Your task to perform on an android device: Empty the shopping cart on walmart. Search for "razer blackwidow" on walmart, select the first entry, add it to the cart, then select checkout. Image 0: 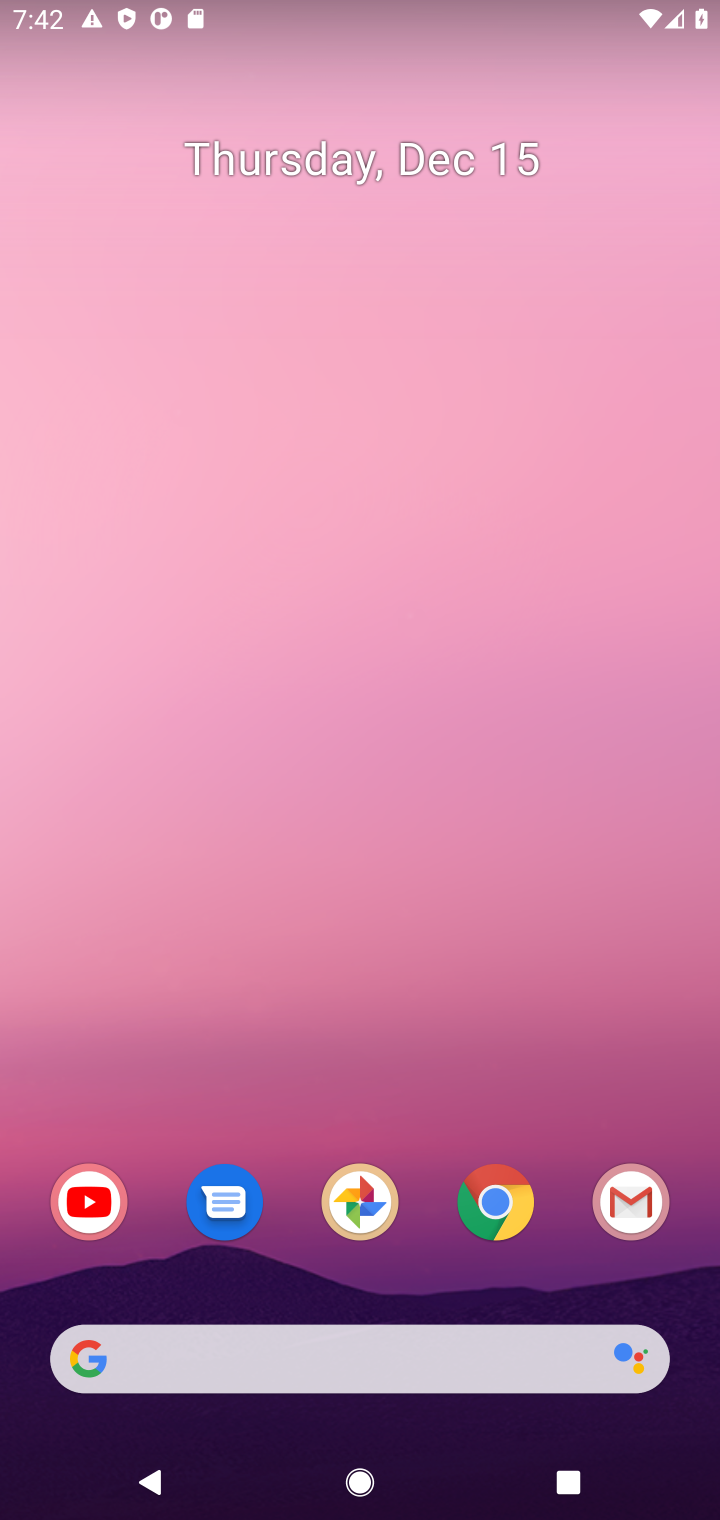
Step 0: click (497, 1190)
Your task to perform on an android device: Empty the shopping cart on walmart. Search for "razer blackwidow" on walmart, select the first entry, add it to the cart, then select checkout. Image 1: 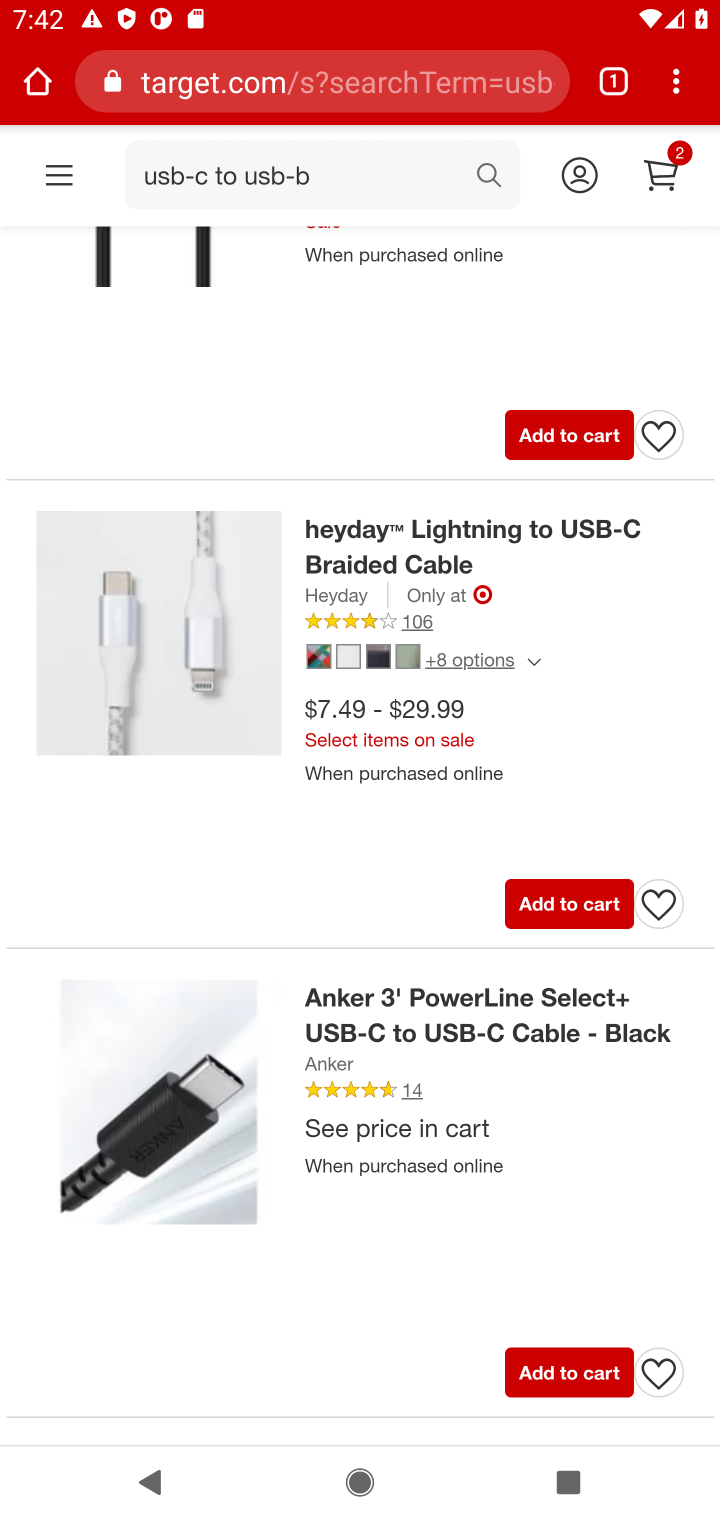
Step 1: click (252, 77)
Your task to perform on an android device: Empty the shopping cart on walmart. Search for "razer blackwidow" on walmart, select the first entry, add it to the cart, then select checkout. Image 2: 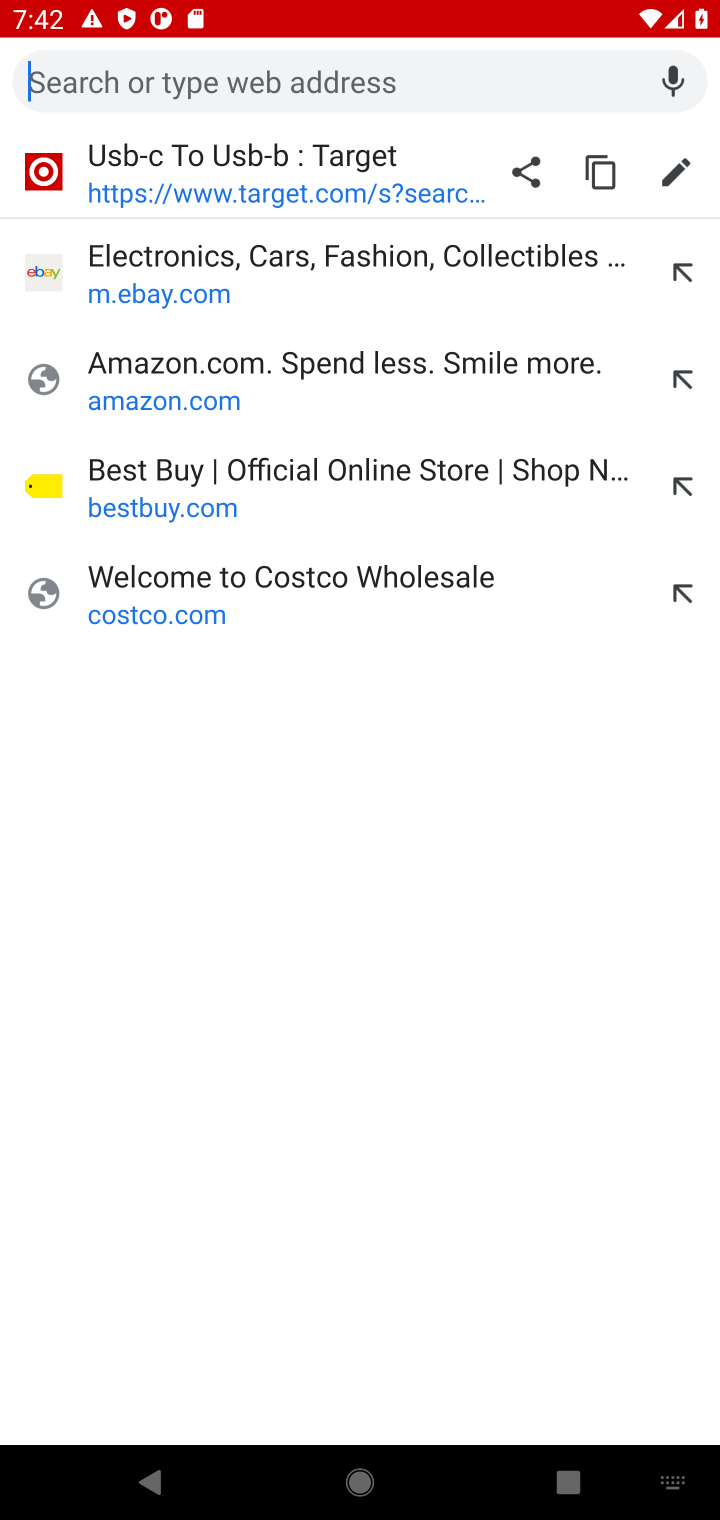
Step 2: type "walmart.com"
Your task to perform on an android device: Empty the shopping cart on walmart. Search for "razer blackwidow" on walmart, select the first entry, add it to the cart, then select checkout. Image 3: 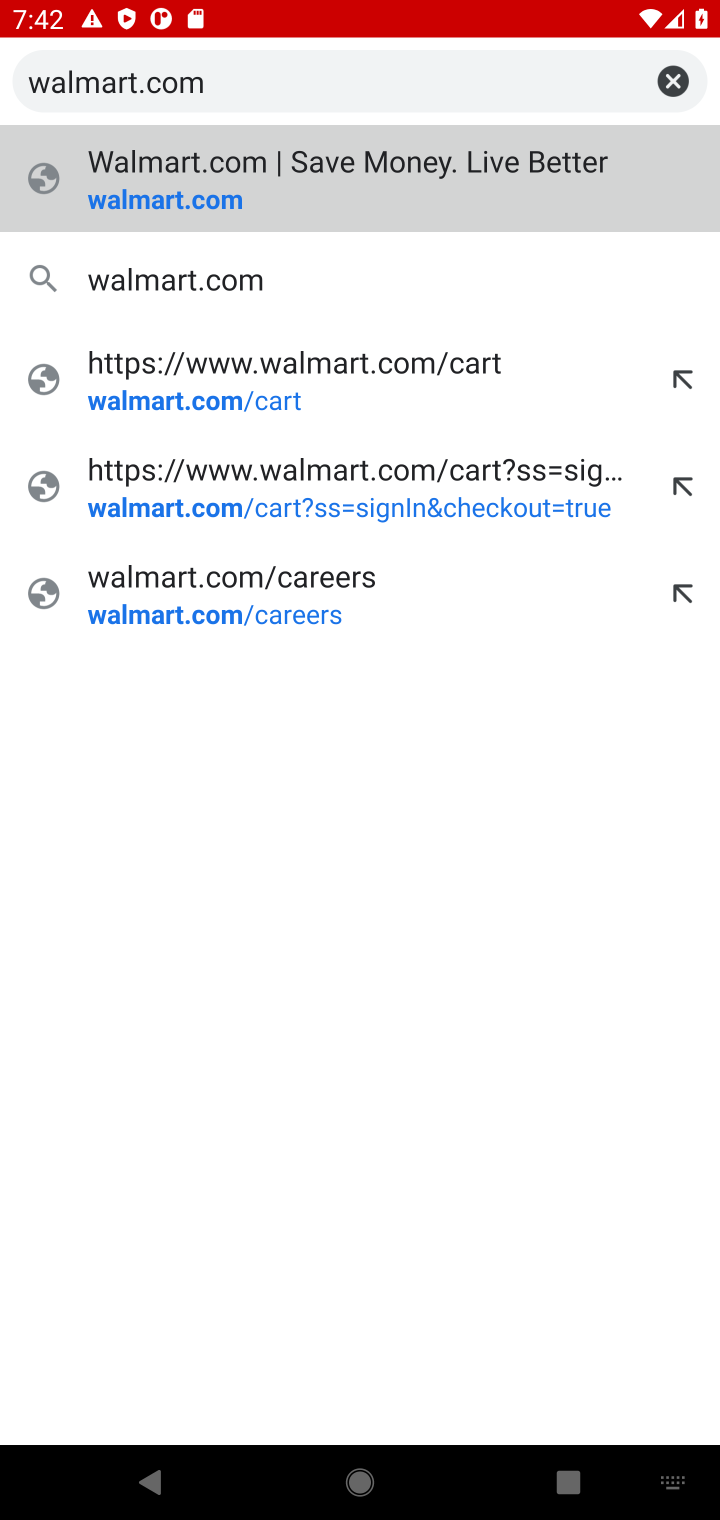
Step 3: click (211, 205)
Your task to perform on an android device: Empty the shopping cart on walmart. Search for "razer blackwidow" on walmart, select the first entry, add it to the cart, then select checkout. Image 4: 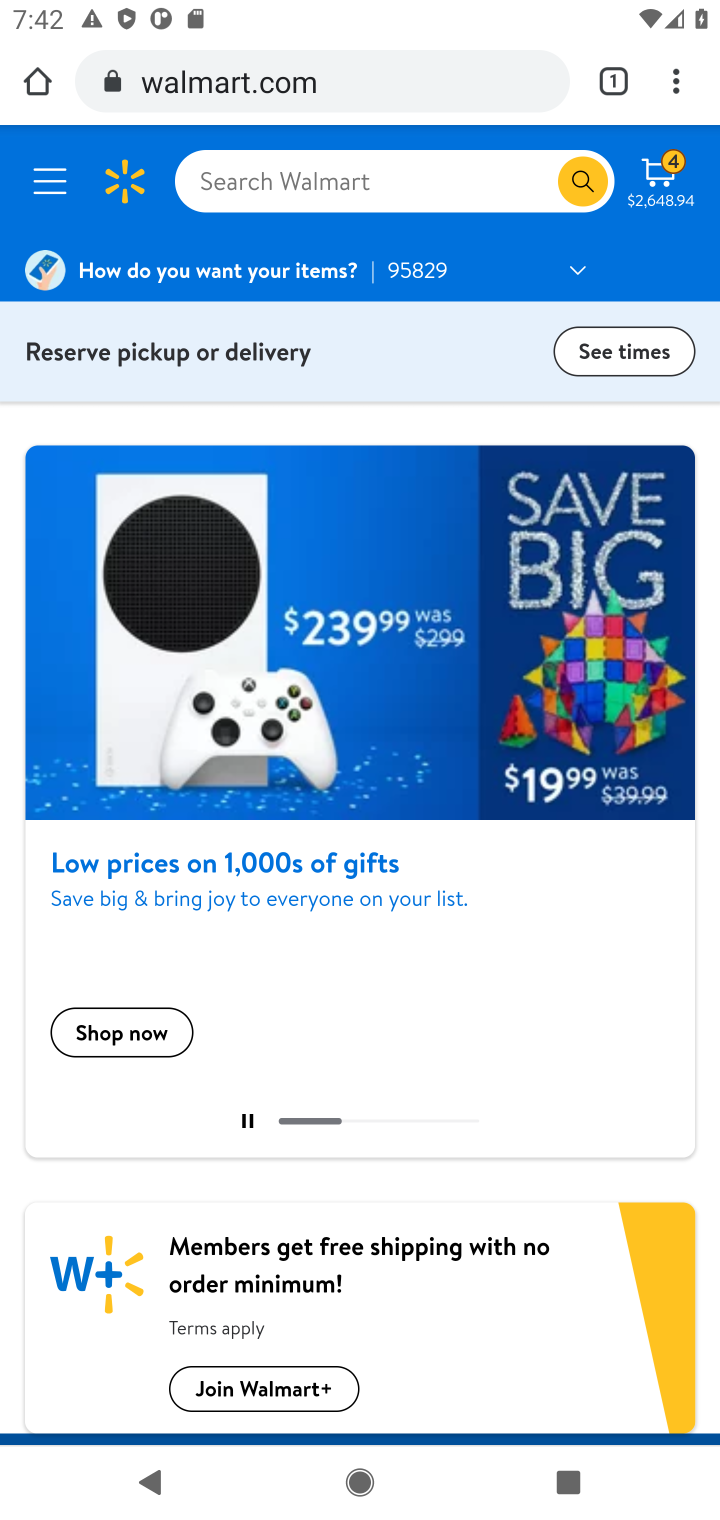
Step 4: click (671, 185)
Your task to perform on an android device: Empty the shopping cart on walmart. Search for "razer blackwidow" on walmart, select the first entry, add it to the cart, then select checkout. Image 5: 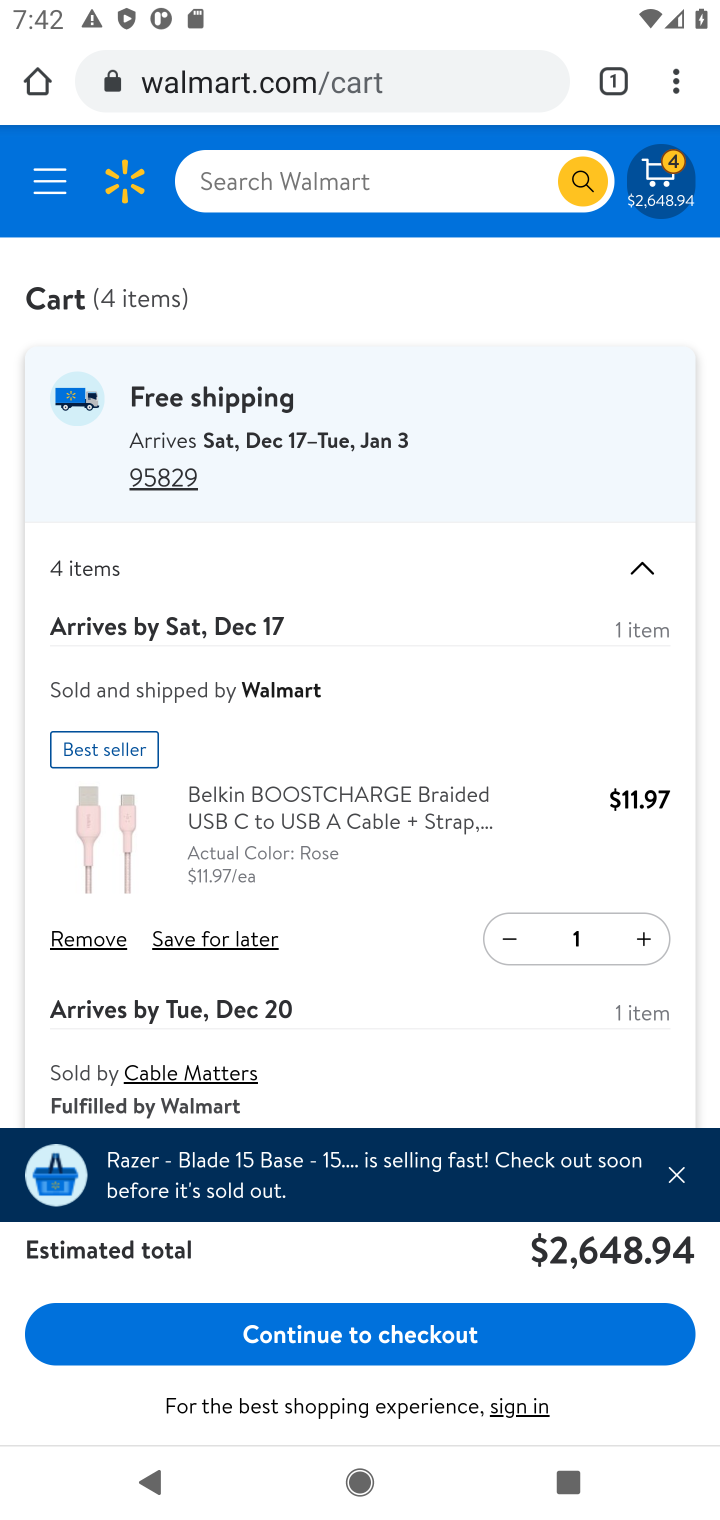
Step 5: click (82, 938)
Your task to perform on an android device: Empty the shopping cart on walmart. Search for "razer blackwidow" on walmart, select the first entry, add it to the cart, then select checkout. Image 6: 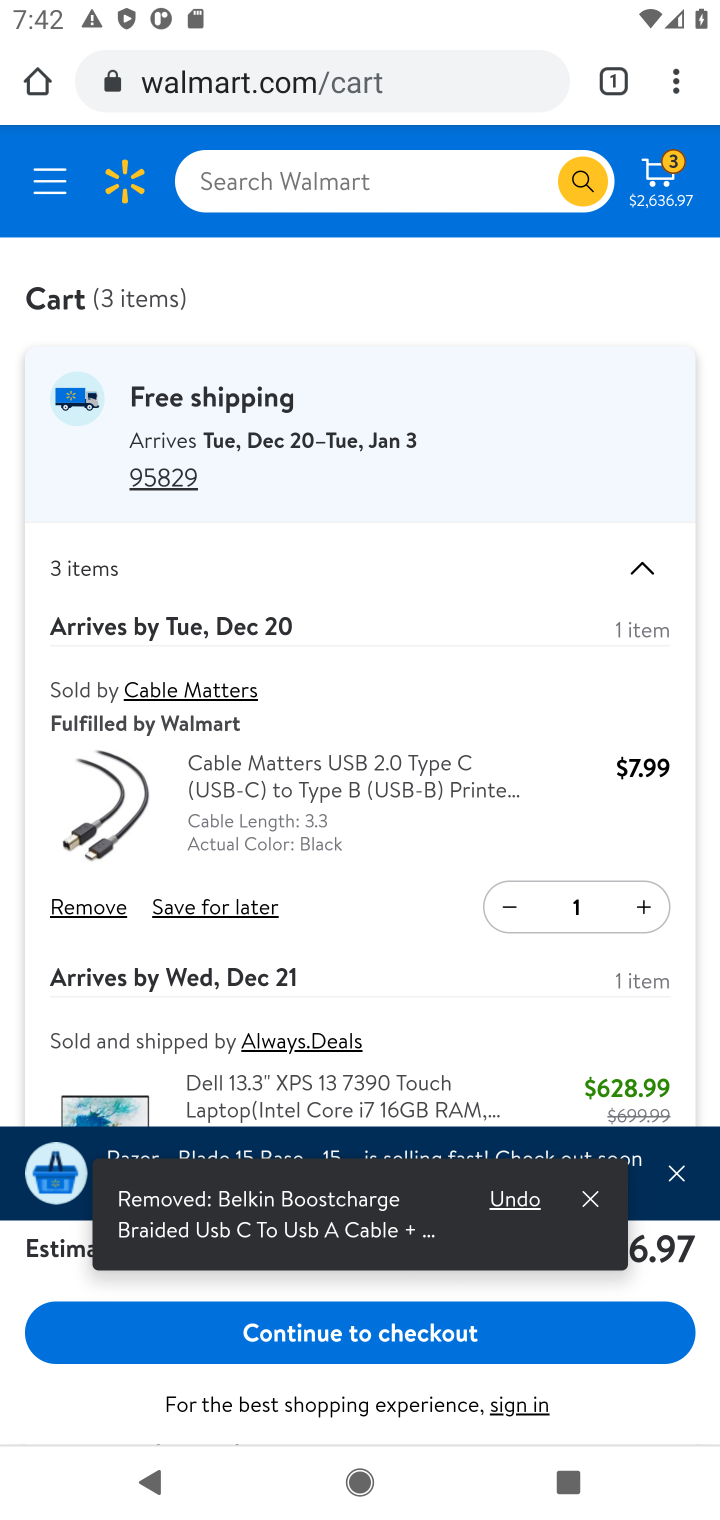
Step 6: click (82, 916)
Your task to perform on an android device: Empty the shopping cart on walmart. Search for "razer blackwidow" on walmart, select the first entry, add it to the cart, then select checkout. Image 7: 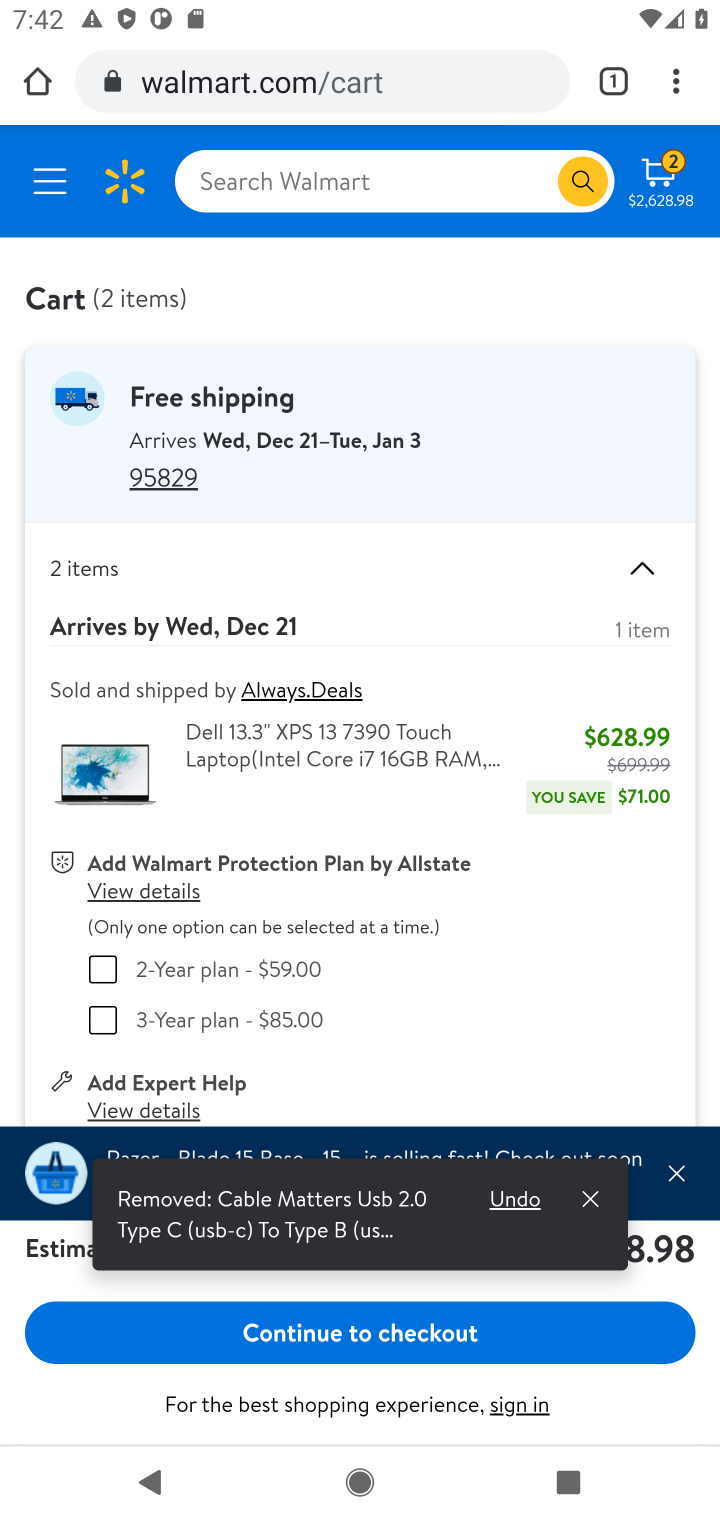
Step 7: drag from (321, 972) to (333, 599)
Your task to perform on an android device: Empty the shopping cart on walmart. Search for "razer blackwidow" on walmart, select the first entry, add it to the cart, then select checkout. Image 8: 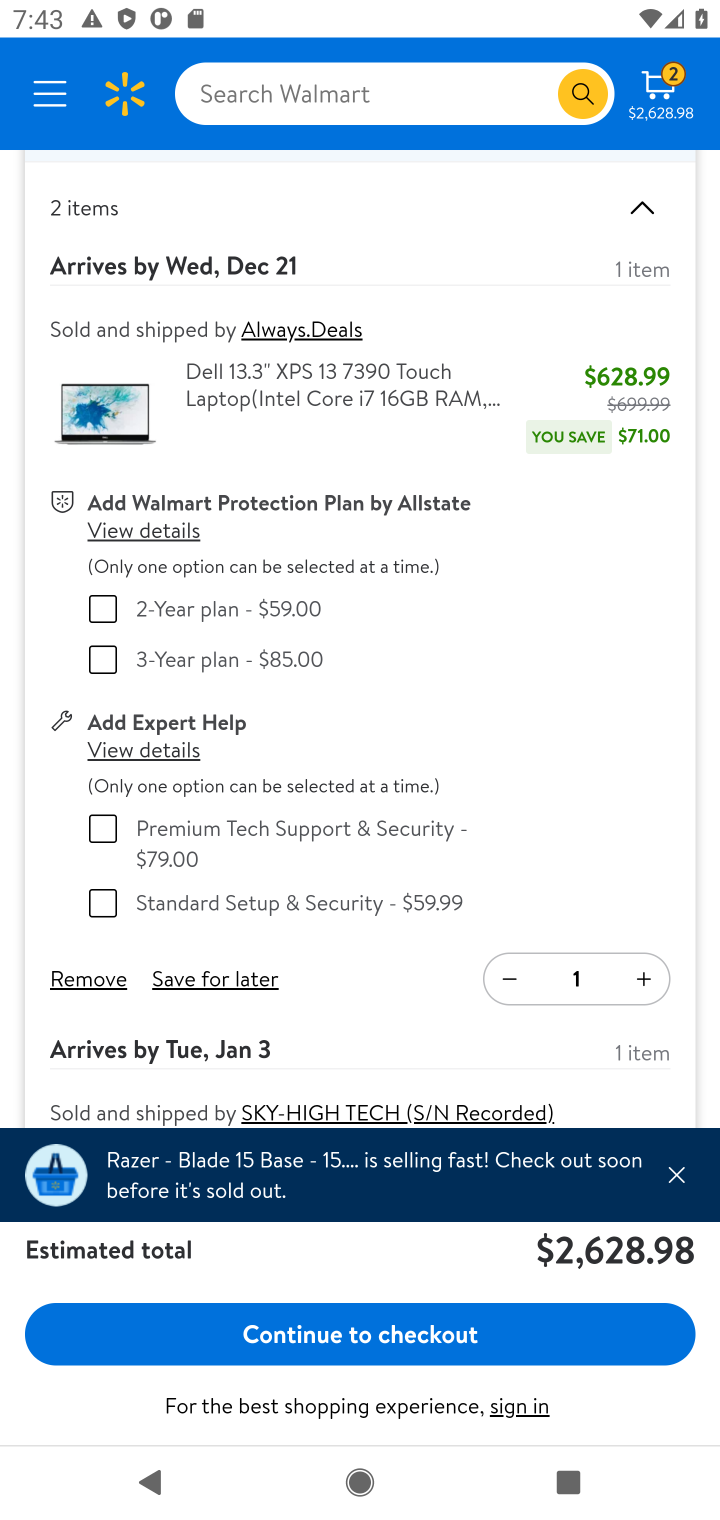
Step 8: click (88, 970)
Your task to perform on an android device: Empty the shopping cart on walmart. Search for "razer blackwidow" on walmart, select the first entry, add it to the cart, then select checkout. Image 9: 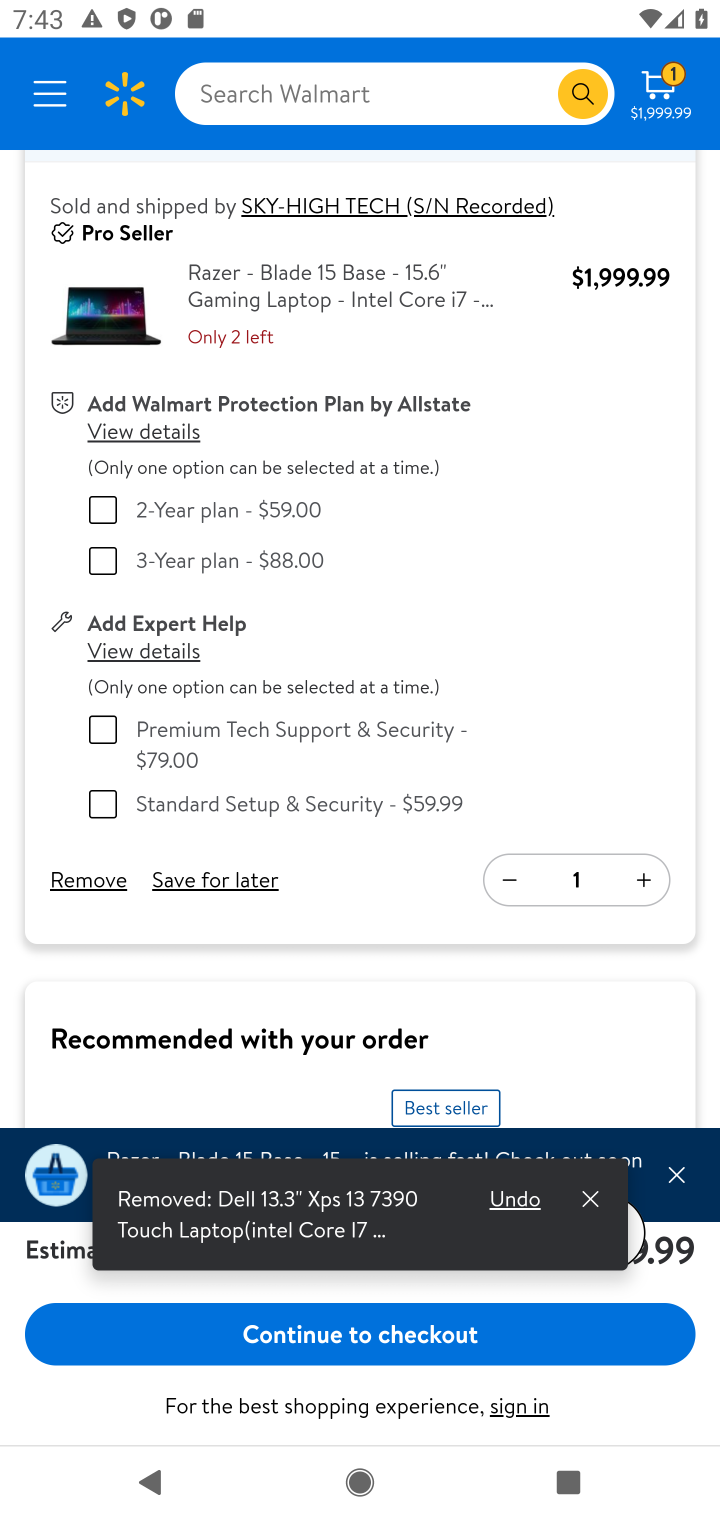
Step 9: click (76, 920)
Your task to perform on an android device: Empty the shopping cart on walmart. Search for "razer blackwidow" on walmart, select the first entry, add it to the cart, then select checkout. Image 10: 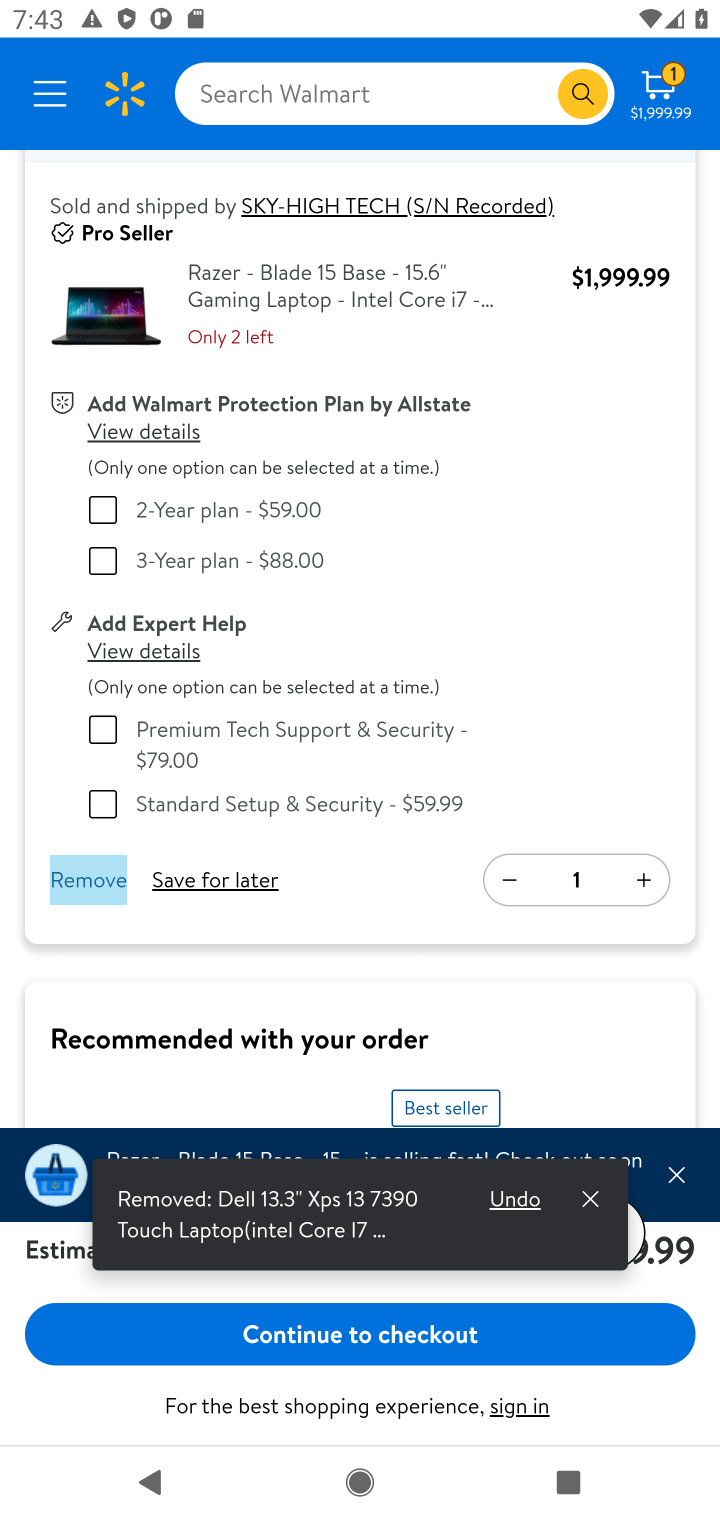
Step 10: click (76, 884)
Your task to perform on an android device: Empty the shopping cart on walmart. Search for "razer blackwidow" on walmart, select the first entry, add it to the cart, then select checkout. Image 11: 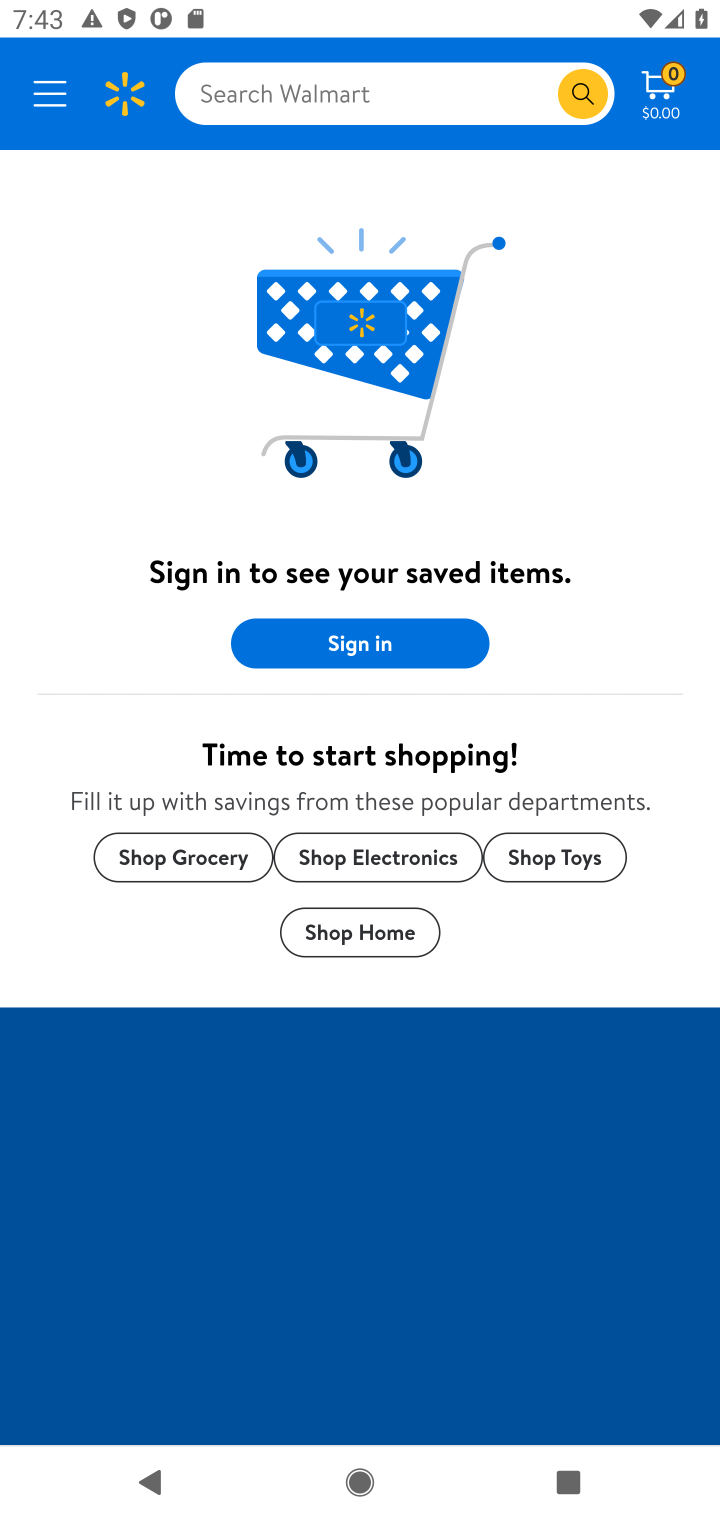
Step 11: click (370, 92)
Your task to perform on an android device: Empty the shopping cart on walmart. Search for "razer blackwidow" on walmart, select the first entry, add it to the cart, then select checkout. Image 12: 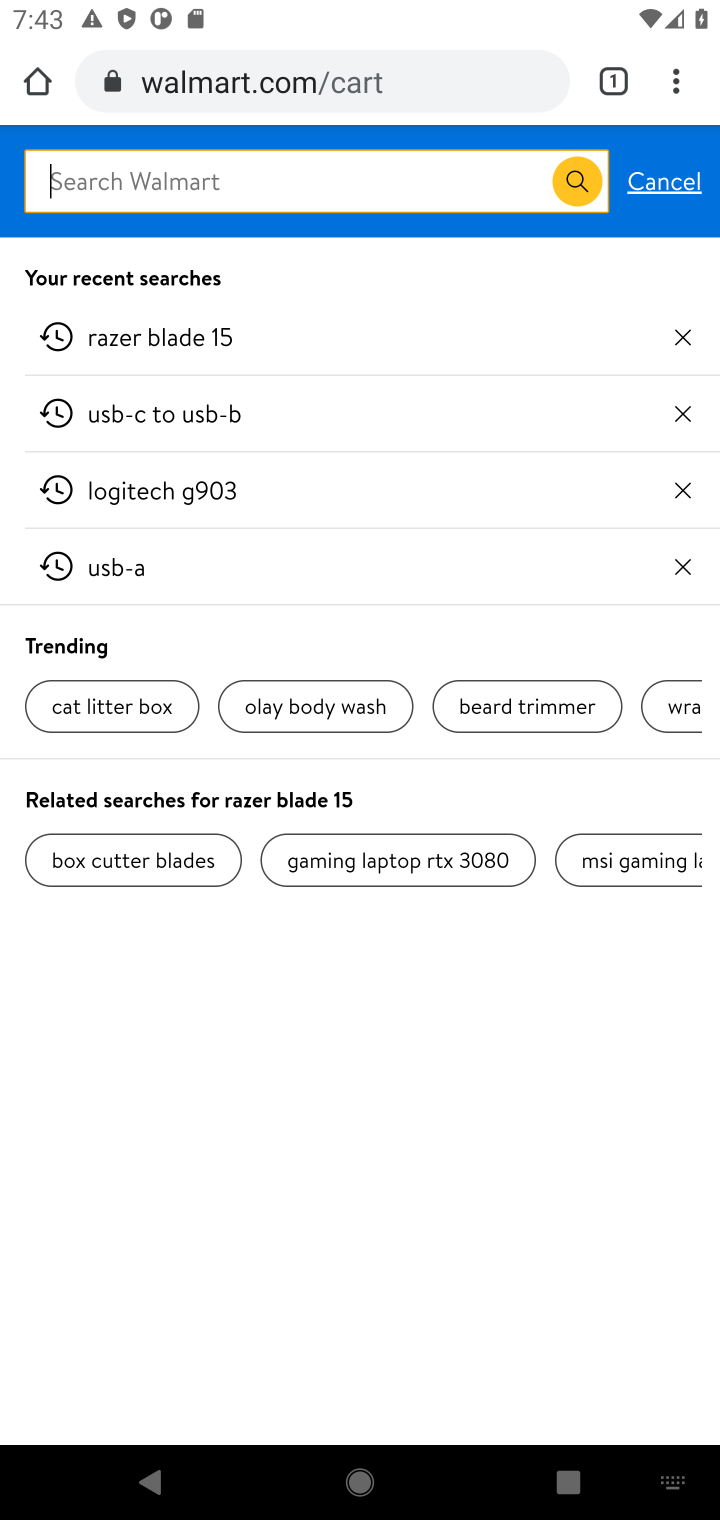
Step 12: type "razer blackwidow"
Your task to perform on an android device: Empty the shopping cart on walmart. Search for "razer blackwidow" on walmart, select the first entry, add it to the cart, then select checkout. Image 13: 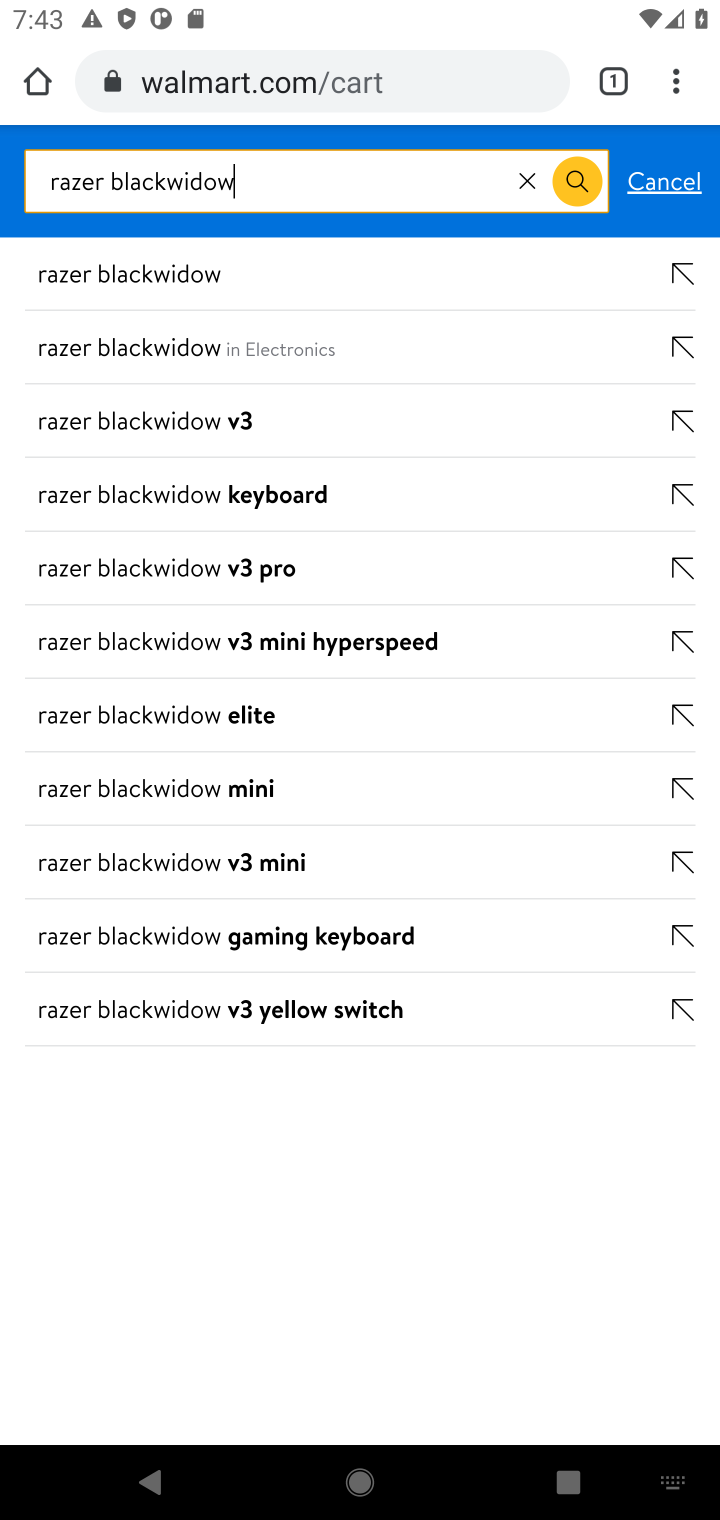
Step 13: click (211, 288)
Your task to perform on an android device: Empty the shopping cart on walmart. Search for "razer blackwidow" on walmart, select the first entry, add it to the cart, then select checkout. Image 14: 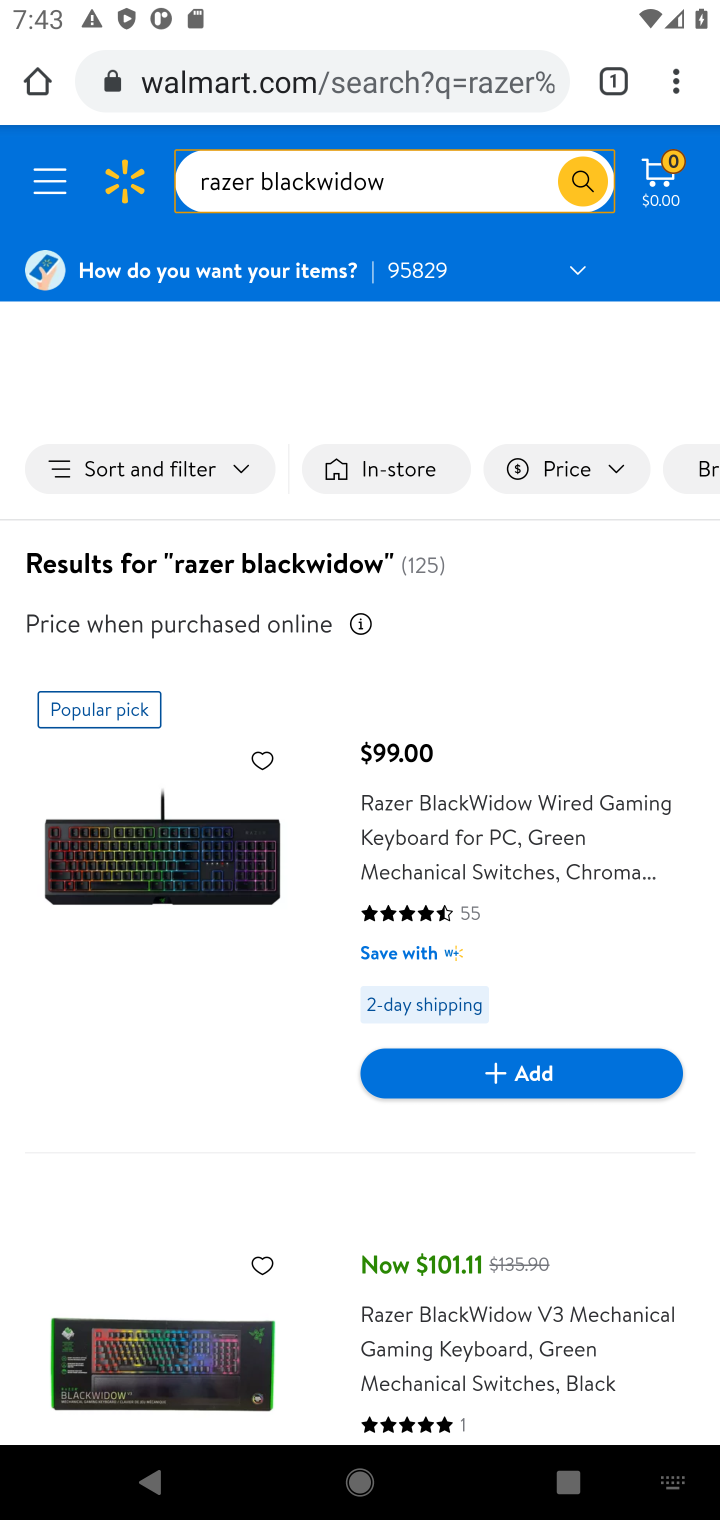
Step 14: click (522, 1072)
Your task to perform on an android device: Empty the shopping cart on walmart. Search for "razer blackwidow" on walmart, select the first entry, add it to the cart, then select checkout. Image 15: 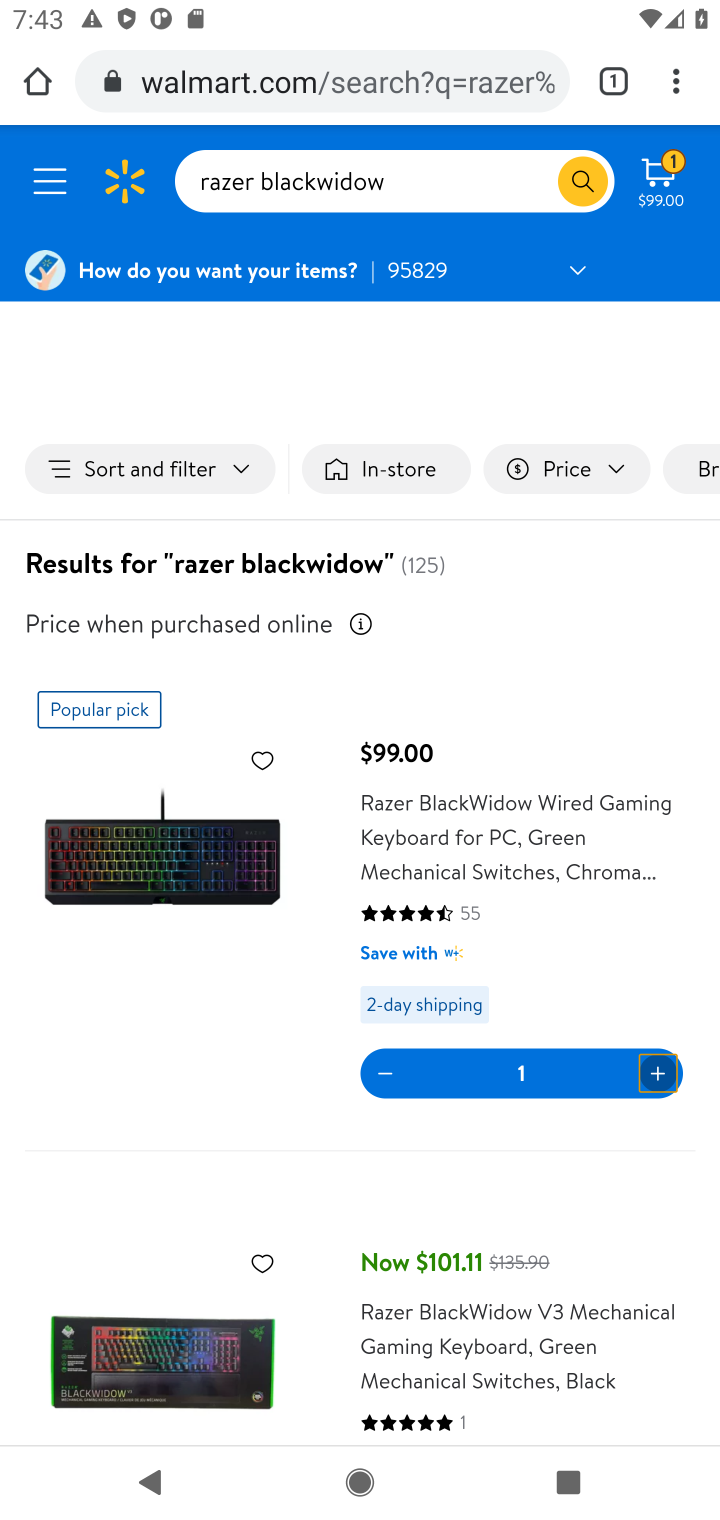
Step 15: click (659, 182)
Your task to perform on an android device: Empty the shopping cart on walmart. Search for "razer blackwidow" on walmart, select the first entry, add it to the cart, then select checkout. Image 16: 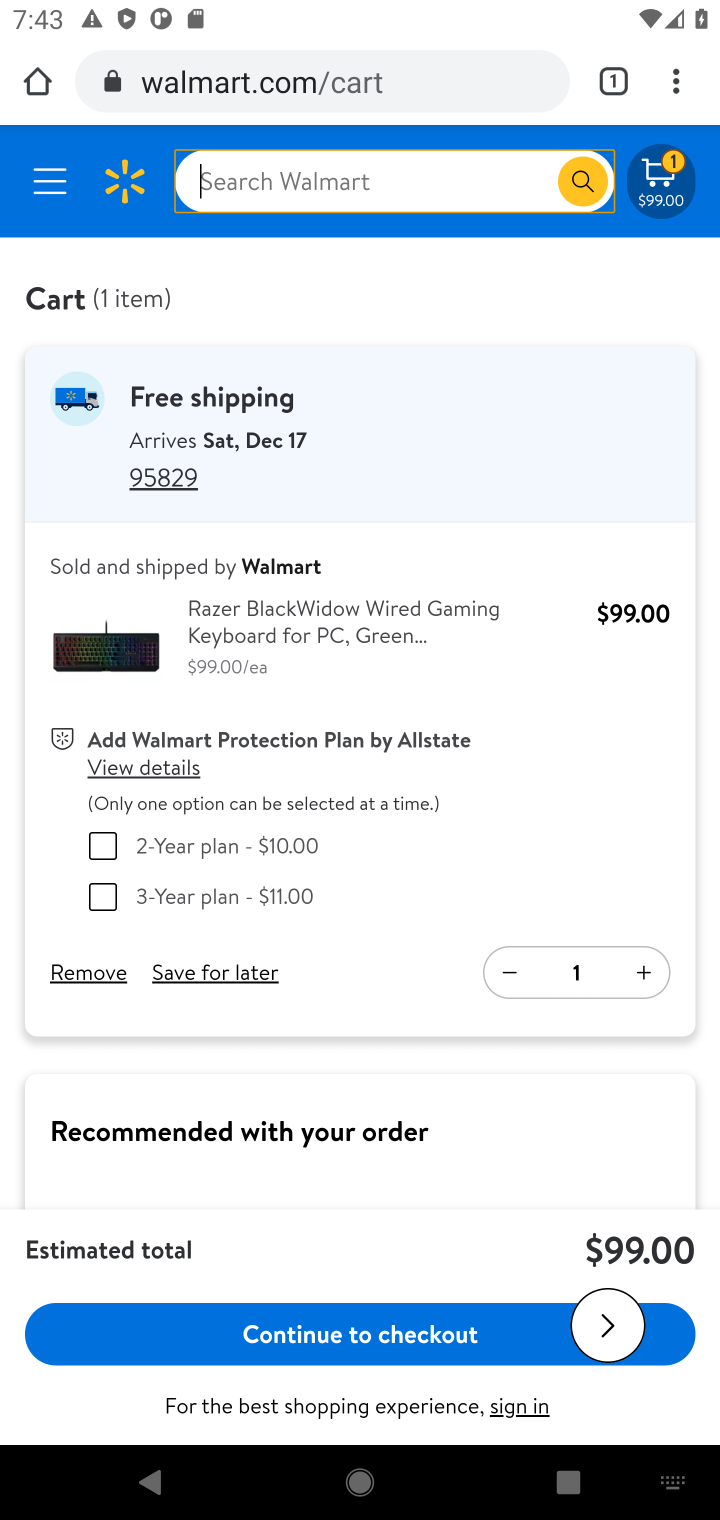
Step 16: click (329, 1342)
Your task to perform on an android device: Empty the shopping cart on walmart. Search for "razer blackwidow" on walmart, select the first entry, add it to the cart, then select checkout. Image 17: 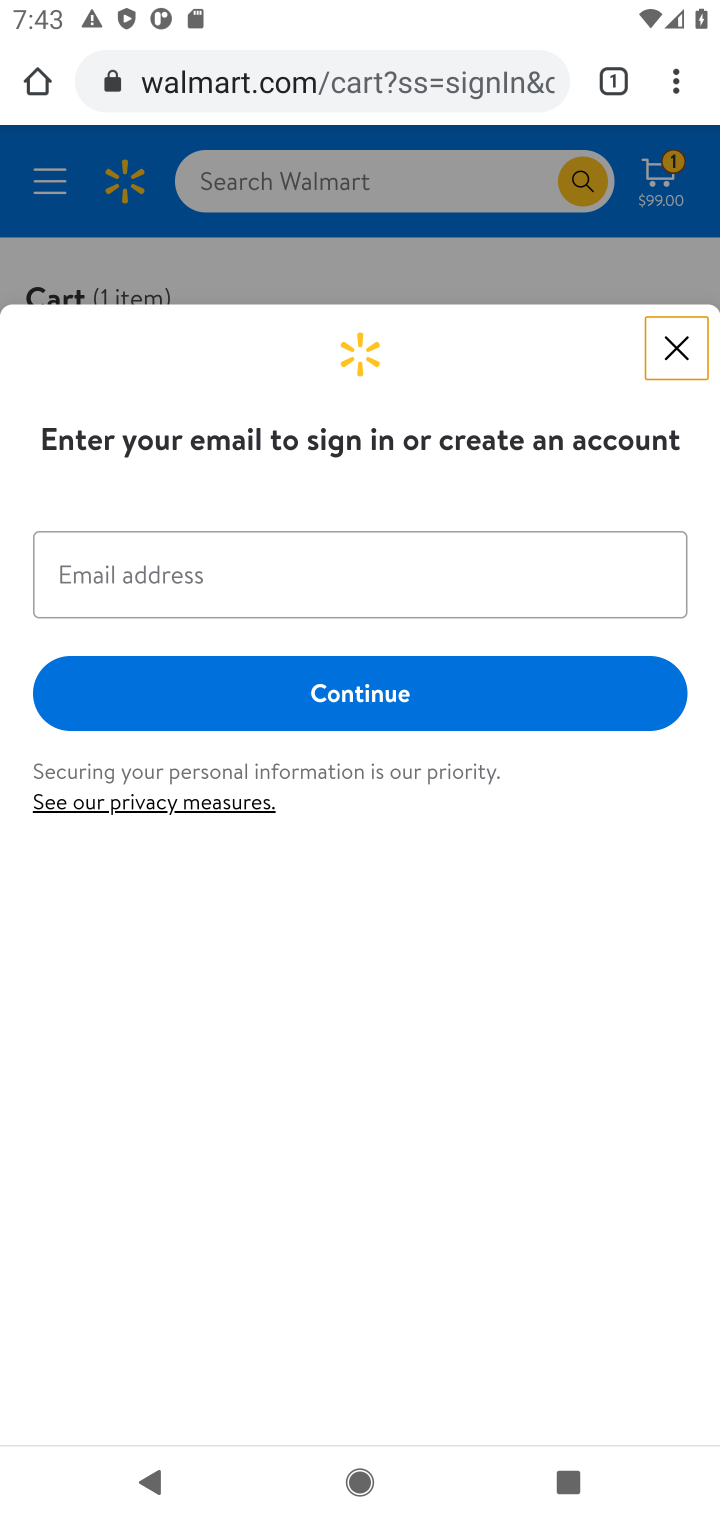
Step 17: task complete